Your task to perform on an android device: move an email to a new category in the gmail app Image 0: 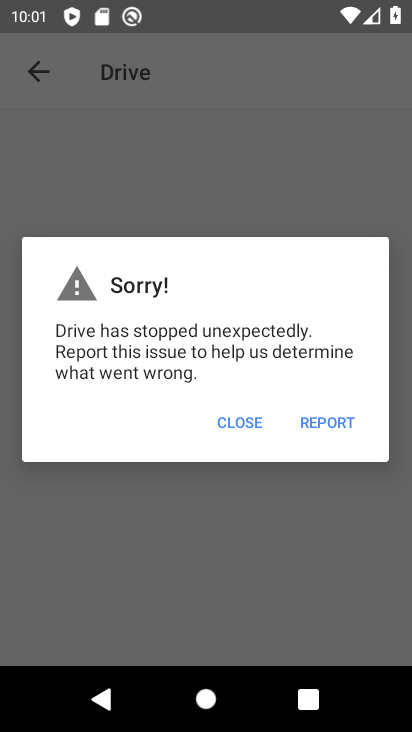
Step 0: press home button
Your task to perform on an android device: move an email to a new category in the gmail app Image 1: 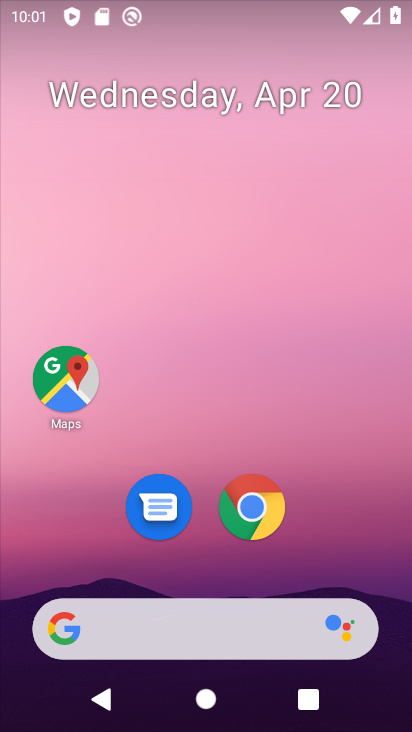
Step 1: drag from (198, 385) to (207, 146)
Your task to perform on an android device: move an email to a new category in the gmail app Image 2: 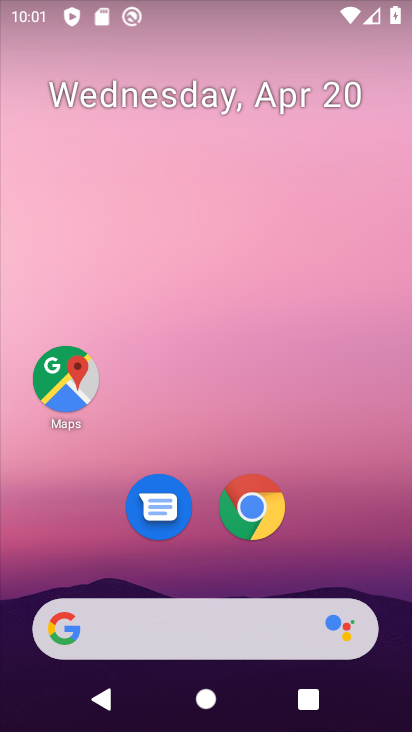
Step 2: drag from (182, 585) to (212, 1)
Your task to perform on an android device: move an email to a new category in the gmail app Image 3: 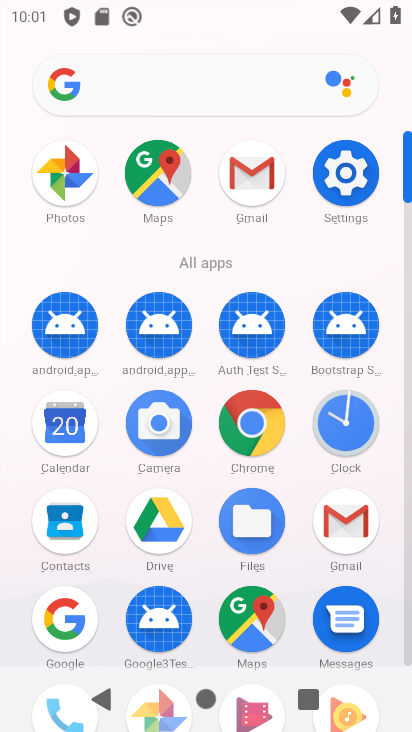
Step 3: click (268, 167)
Your task to perform on an android device: move an email to a new category in the gmail app Image 4: 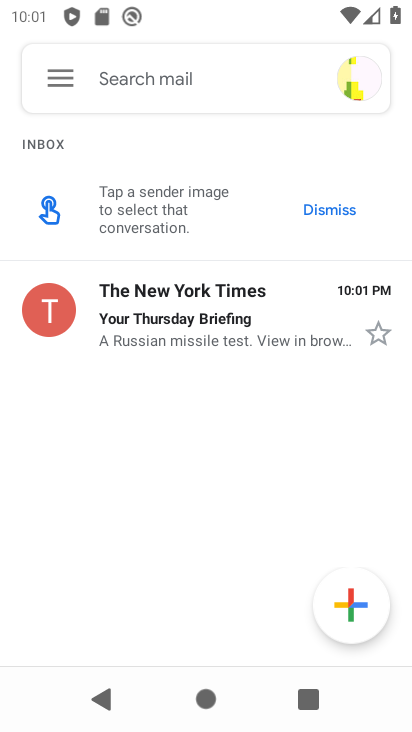
Step 4: click (257, 308)
Your task to perform on an android device: move an email to a new category in the gmail app Image 5: 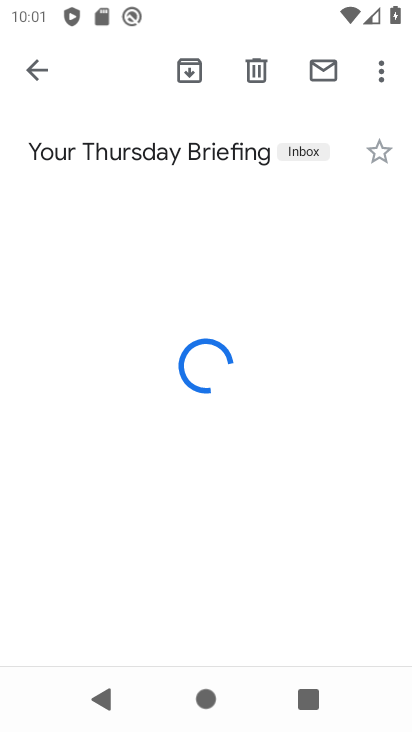
Step 5: click (383, 73)
Your task to perform on an android device: move an email to a new category in the gmail app Image 6: 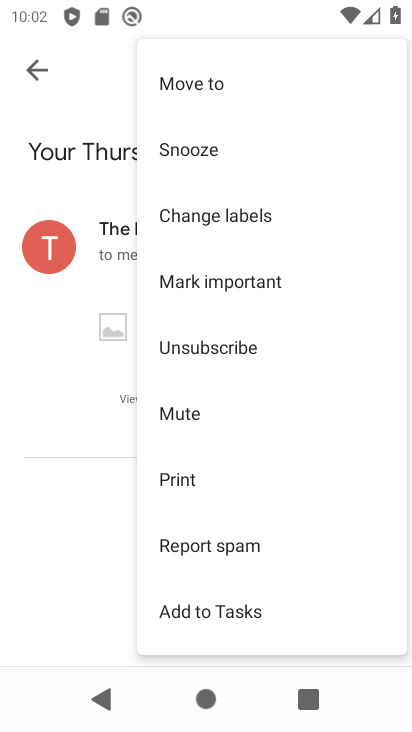
Step 6: click (212, 103)
Your task to perform on an android device: move an email to a new category in the gmail app Image 7: 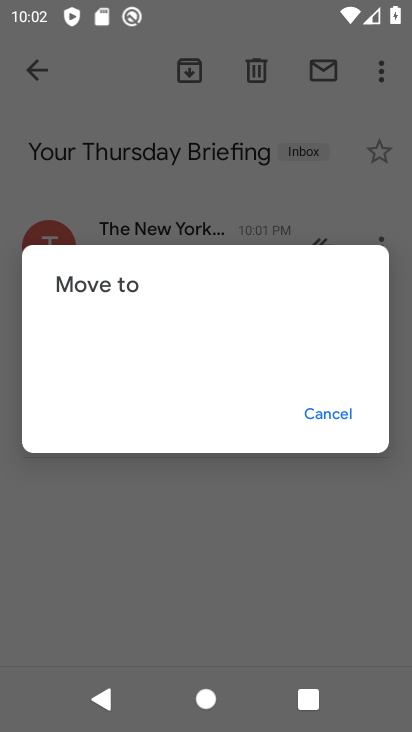
Step 7: task complete